Your task to perform on an android device: all mails in gmail Image 0: 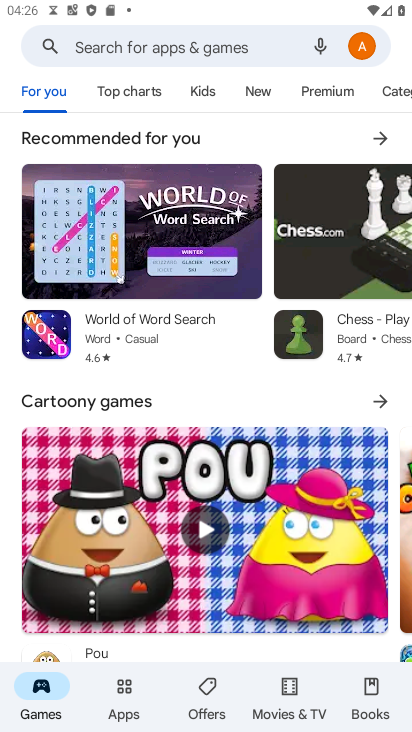
Step 0: press home button
Your task to perform on an android device: all mails in gmail Image 1: 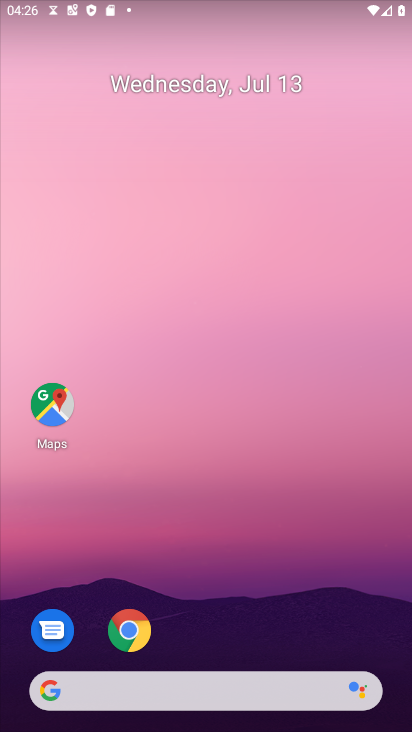
Step 1: drag from (318, 686) to (247, 11)
Your task to perform on an android device: all mails in gmail Image 2: 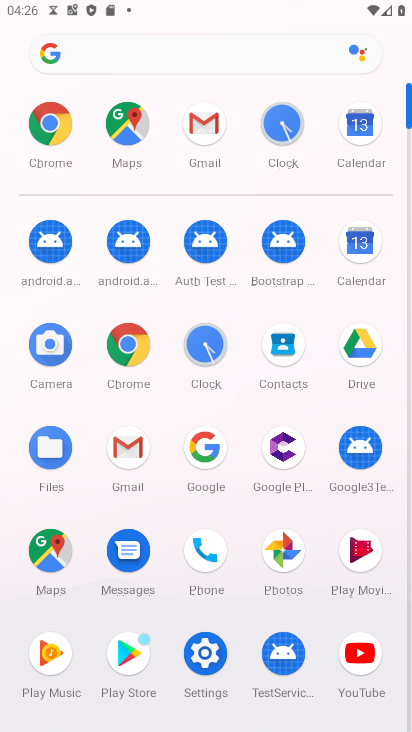
Step 2: click (115, 445)
Your task to perform on an android device: all mails in gmail Image 3: 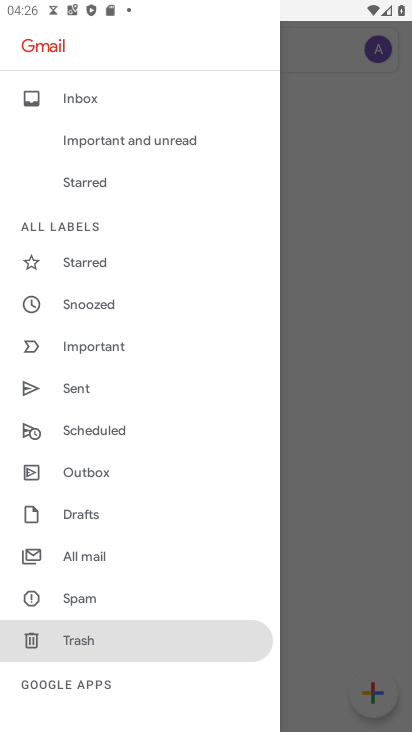
Step 3: drag from (175, 636) to (207, 422)
Your task to perform on an android device: all mails in gmail Image 4: 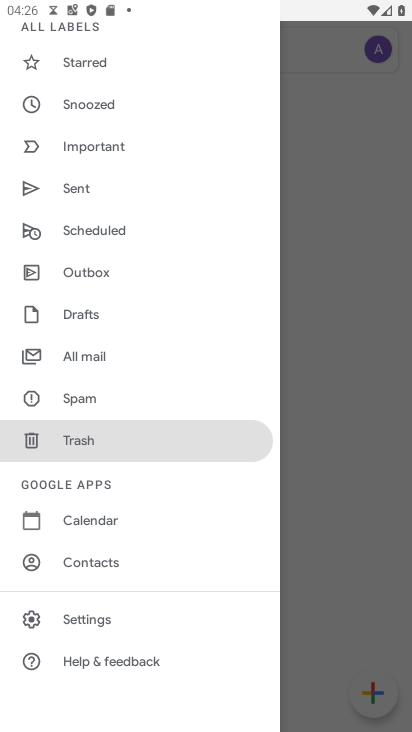
Step 4: click (100, 364)
Your task to perform on an android device: all mails in gmail Image 5: 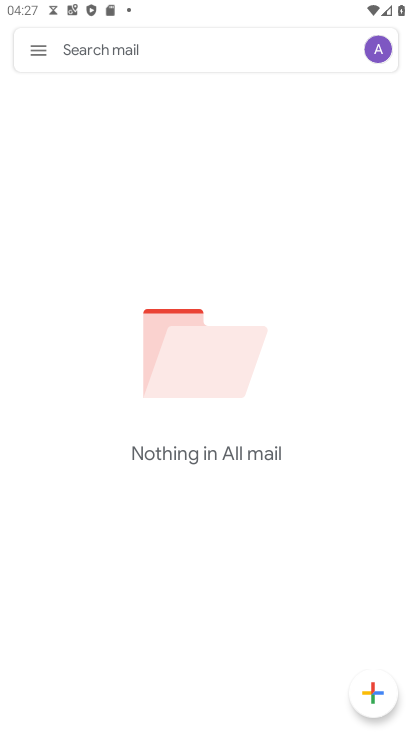
Step 5: task complete